Your task to perform on an android device: Check the settings for the Amazon Prime Video app Image 0: 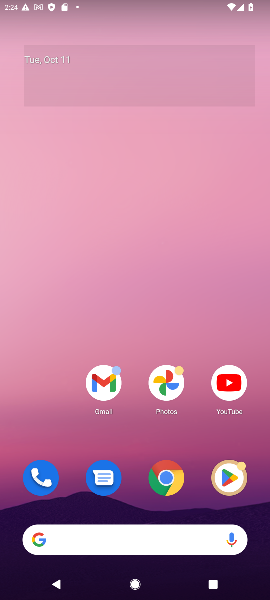
Step 0: drag from (167, 553) to (116, 148)
Your task to perform on an android device: Check the settings for the Amazon Prime Video app Image 1: 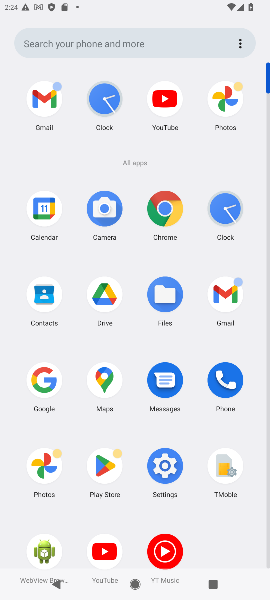
Step 1: task complete